Your task to perform on an android device: turn pop-ups off in chrome Image 0: 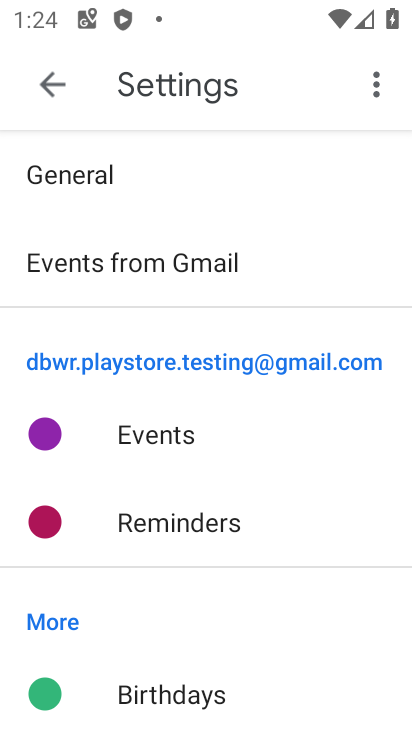
Step 0: press home button
Your task to perform on an android device: turn pop-ups off in chrome Image 1: 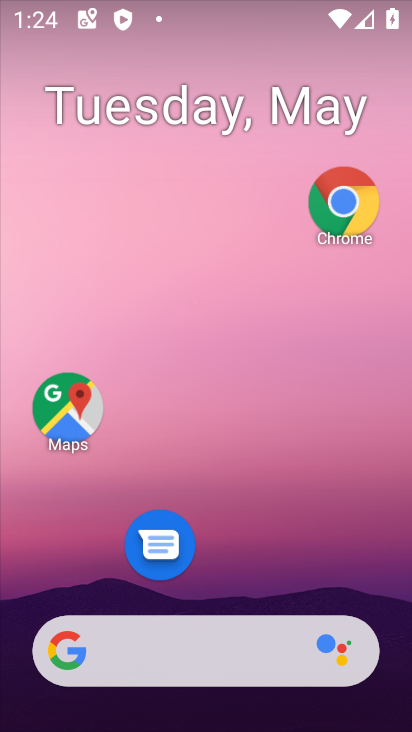
Step 1: click (348, 210)
Your task to perform on an android device: turn pop-ups off in chrome Image 2: 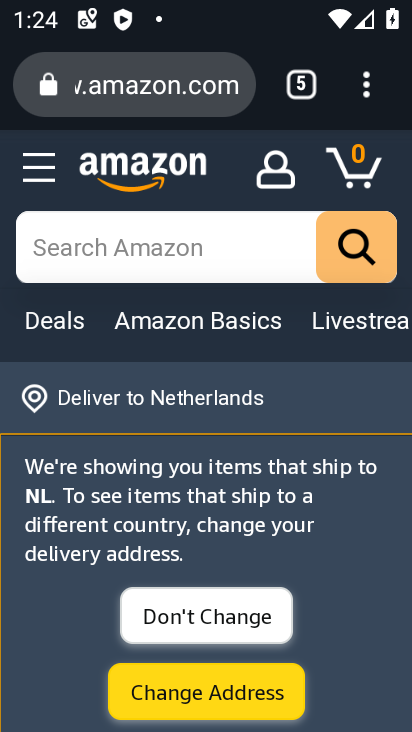
Step 2: click (378, 72)
Your task to perform on an android device: turn pop-ups off in chrome Image 3: 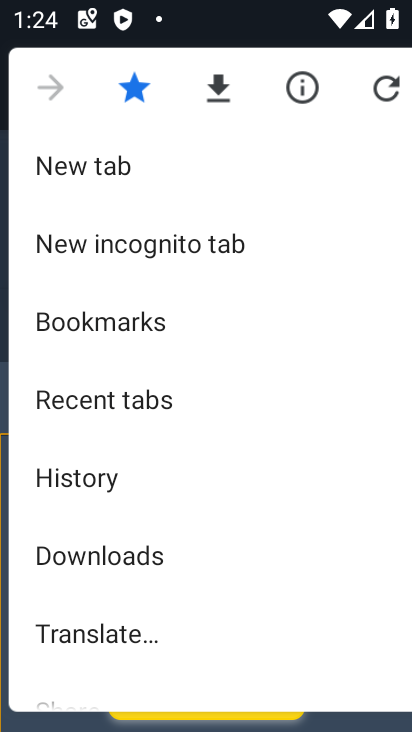
Step 3: drag from (151, 661) to (189, 227)
Your task to perform on an android device: turn pop-ups off in chrome Image 4: 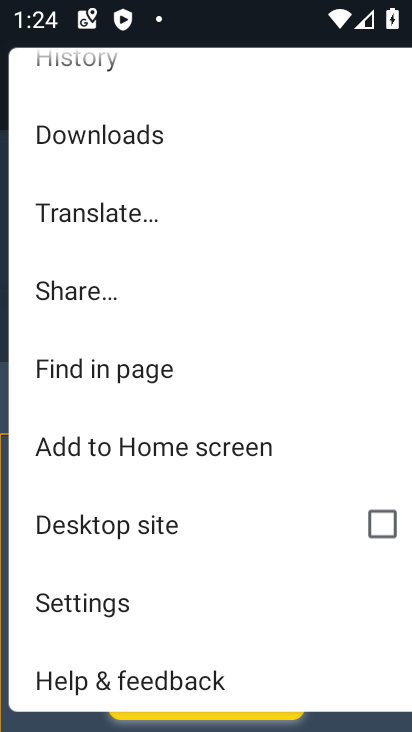
Step 4: click (116, 604)
Your task to perform on an android device: turn pop-ups off in chrome Image 5: 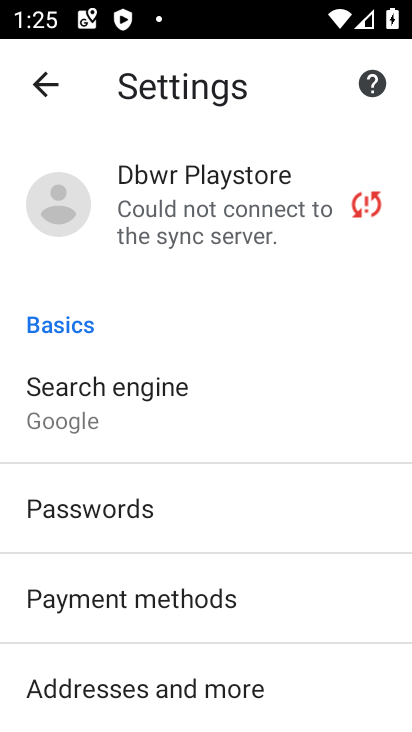
Step 5: drag from (66, 650) to (164, 96)
Your task to perform on an android device: turn pop-ups off in chrome Image 6: 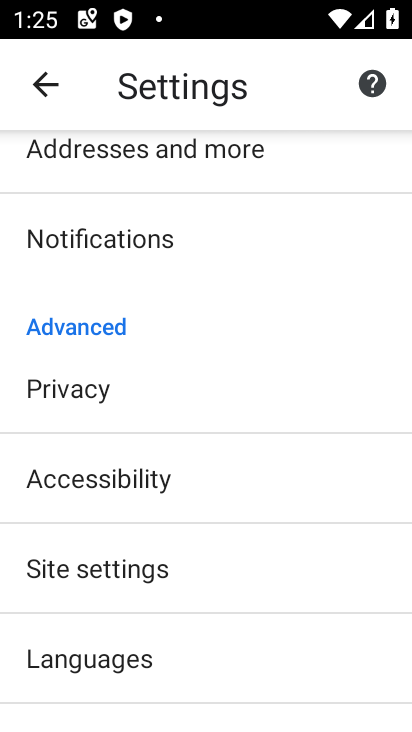
Step 6: click (83, 585)
Your task to perform on an android device: turn pop-ups off in chrome Image 7: 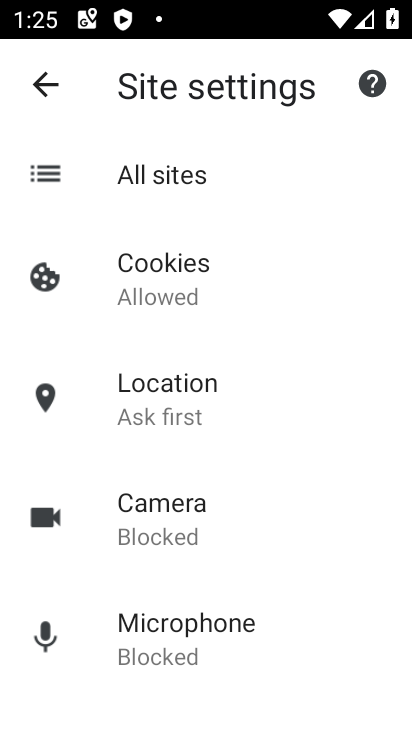
Step 7: drag from (163, 673) to (257, 209)
Your task to perform on an android device: turn pop-ups off in chrome Image 8: 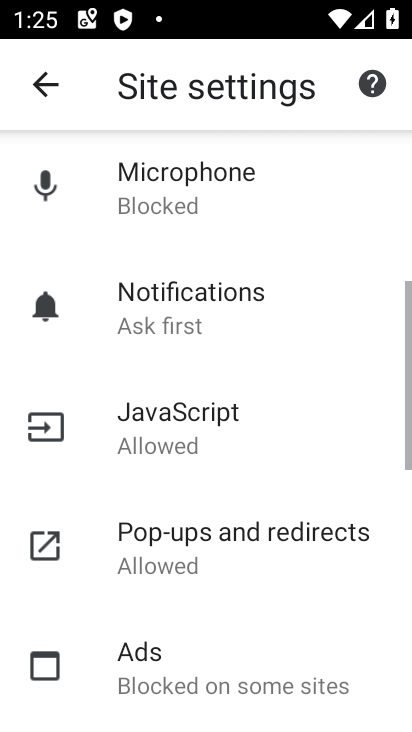
Step 8: click (175, 532)
Your task to perform on an android device: turn pop-ups off in chrome Image 9: 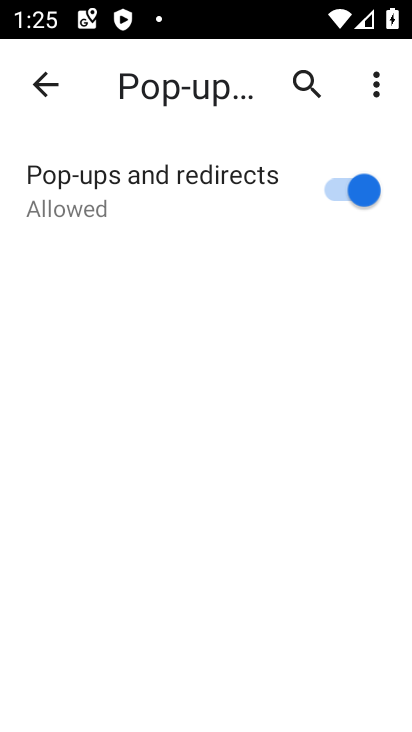
Step 9: click (346, 190)
Your task to perform on an android device: turn pop-ups off in chrome Image 10: 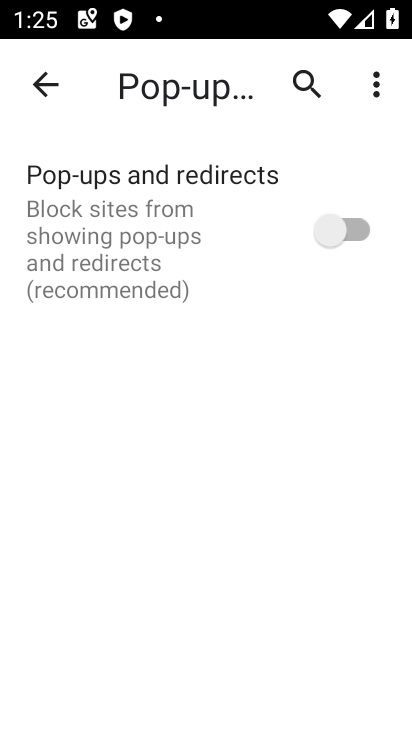
Step 10: task complete